Your task to perform on an android device: What's the weather? Image 0: 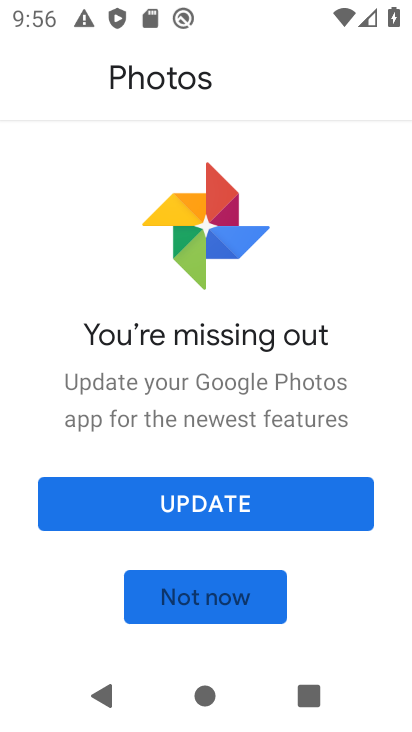
Step 0: press home button
Your task to perform on an android device: What's the weather? Image 1: 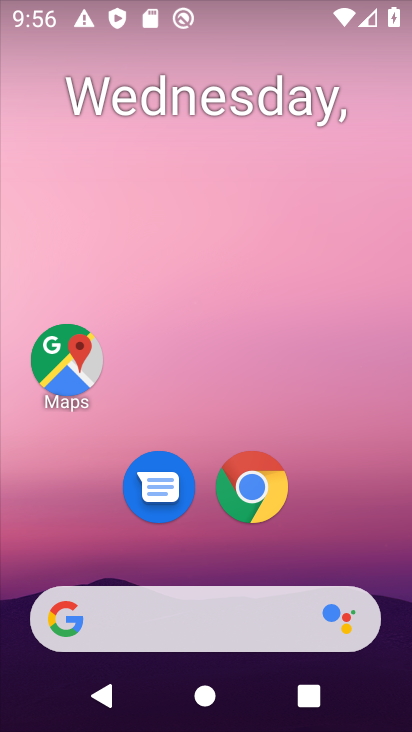
Step 1: click (151, 616)
Your task to perform on an android device: What's the weather? Image 2: 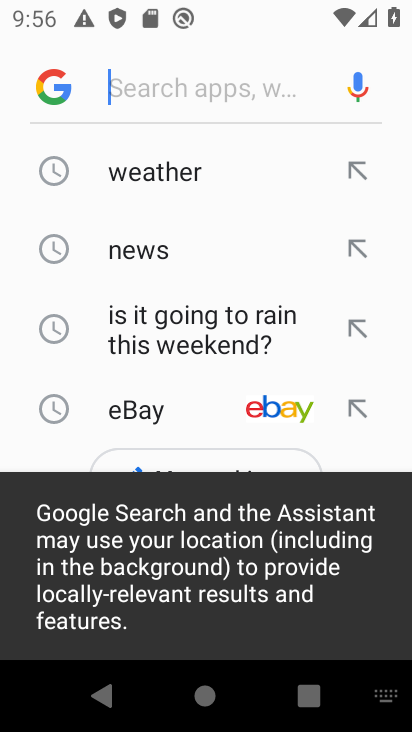
Step 2: click (139, 164)
Your task to perform on an android device: What's the weather? Image 3: 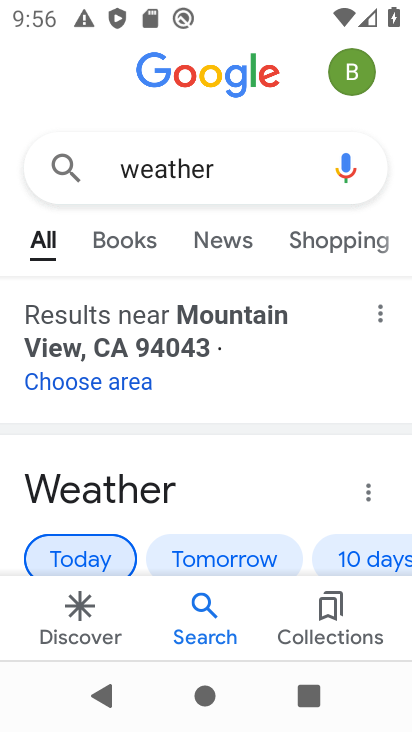
Step 3: task complete